Your task to perform on an android device: toggle priority inbox in the gmail app Image 0: 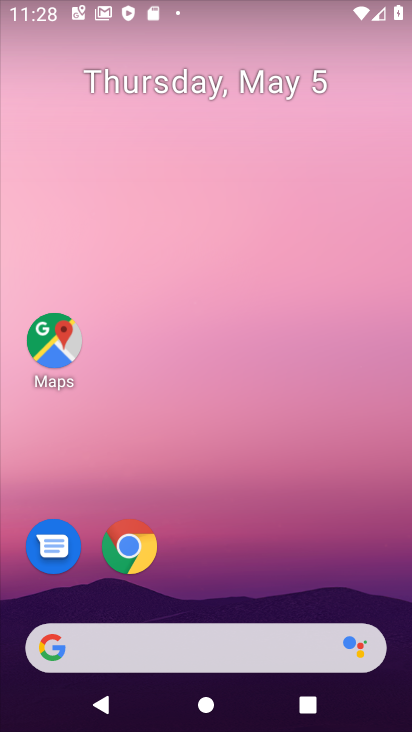
Step 0: drag from (285, 578) to (308, 106)
Your task to perform on an android device: toggle priority inbox in the gmail app Image 1: 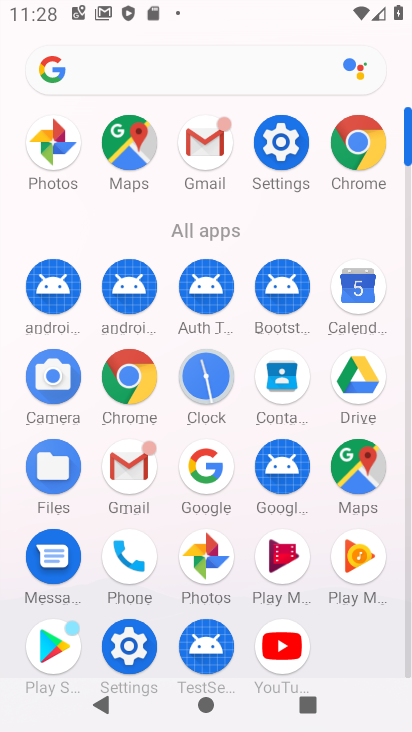
Step 1: click (211, 144)
Your task to perform on an android device: toggle priority inbox in the gmail app Image 2: 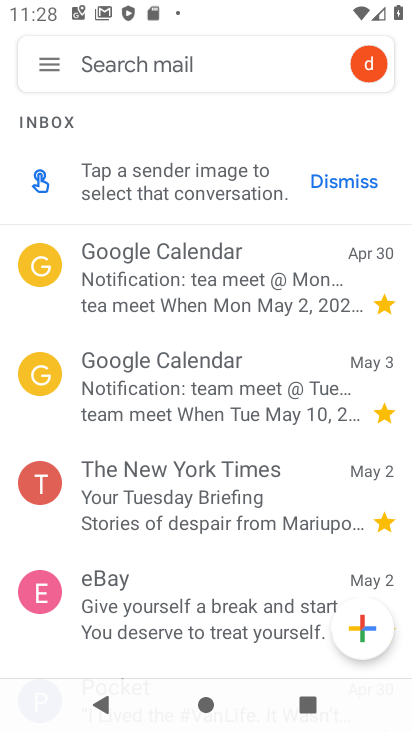
Step 2: click (50, 67)
Your task to perform on an android device: toggle priority inbox in the gmail app Image 3: 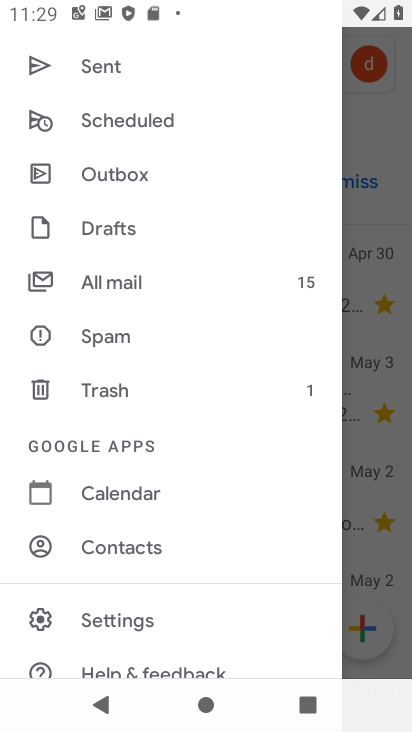
Step 3: click (144, 620)
Your task to perform on an android device: toggle priority inbox in the gmail app Image 4: 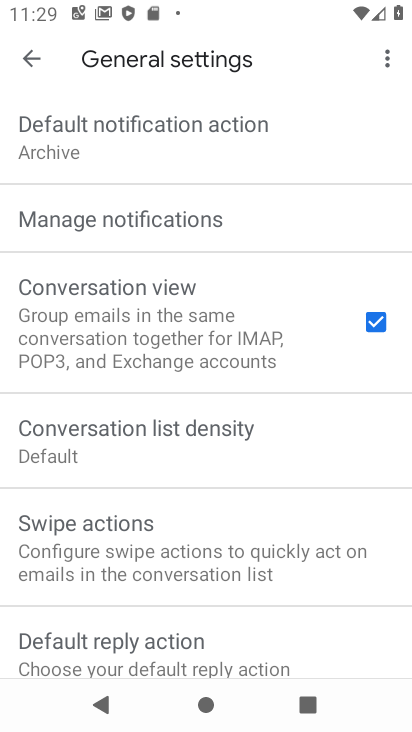
Step 4: click (32, 64)
Your task to perform on an android device: toggle priority inbox in the gmail app Image 5: 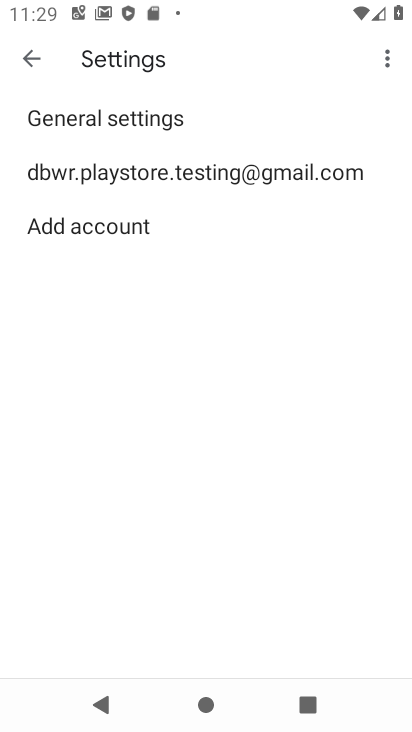
Step 5: click (138, 169)
Your task to perform on an android device: toggle priority inbox in the gmail app Image 6: 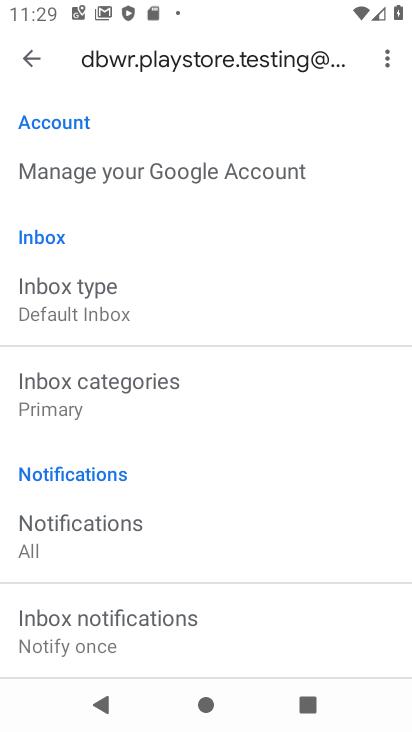
Step 6: click (104, 316)
Your task to perform on an android device: toggle priority inbox in the gmail app Image 7: 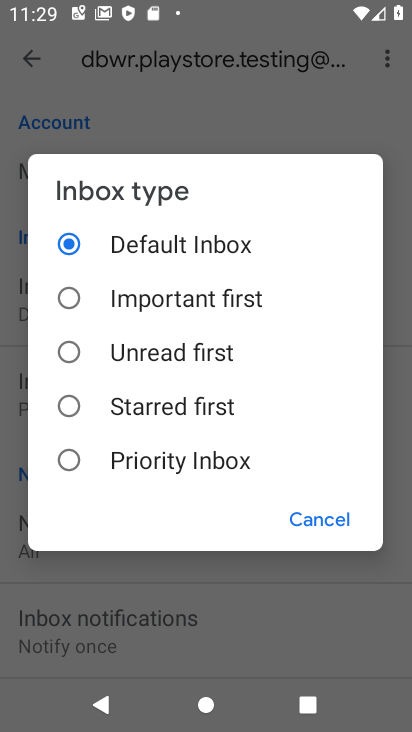
Step 7: click (66, 458)
Your task to perform on an android device: toggle priority inbox in the gmail app Image 8: 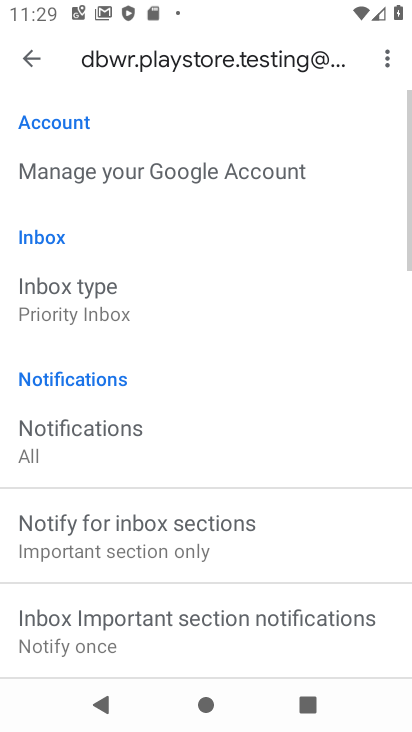
Step 8: task complete